Your task to perform on an android device: toggle data saver in the chrome app Image 0: 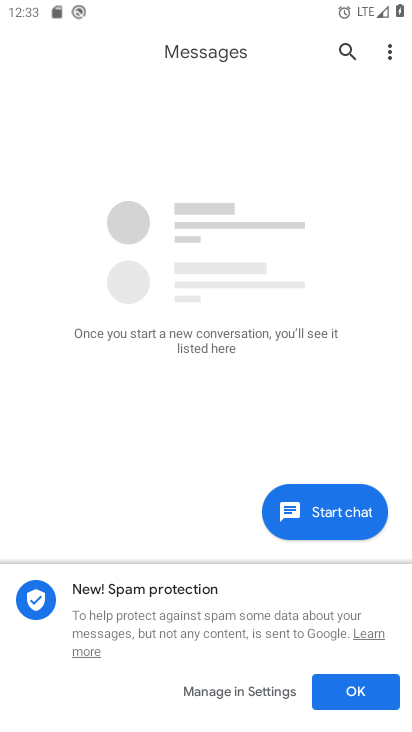
Step 0: press home button
Your task to perform on an android device: toggle data saver in the chrome app Image 1: 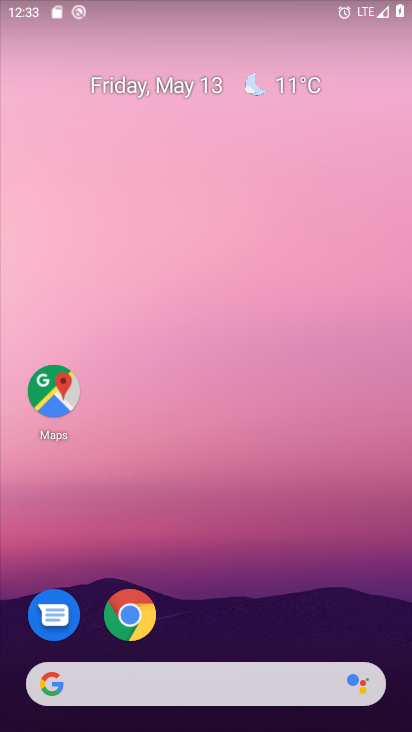
Step 1: click (139, 610)
Your task to perform on an android device: toggle data saver in the chrome app Image 2: 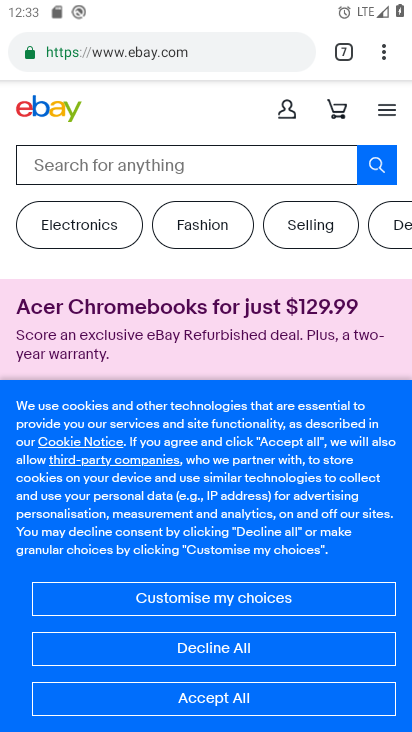
Step 2: click (381, 49)
Your task to perform on an android device: toggle data saver in the chrome app Image 3: 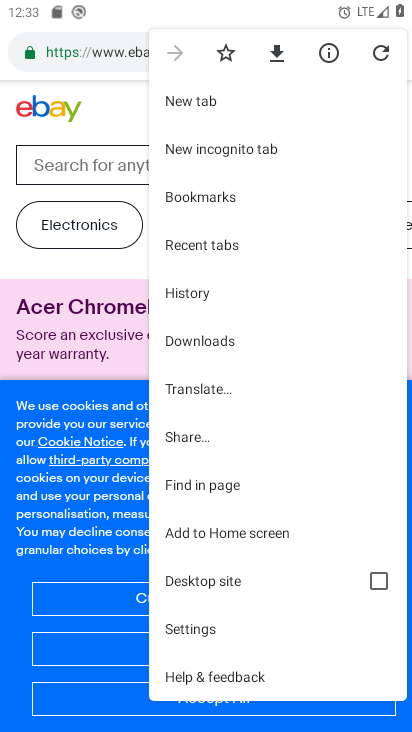
Step 3: click (235, 629)
Your task to perform on an android device: toggle data saver in the chrome app Image 4: 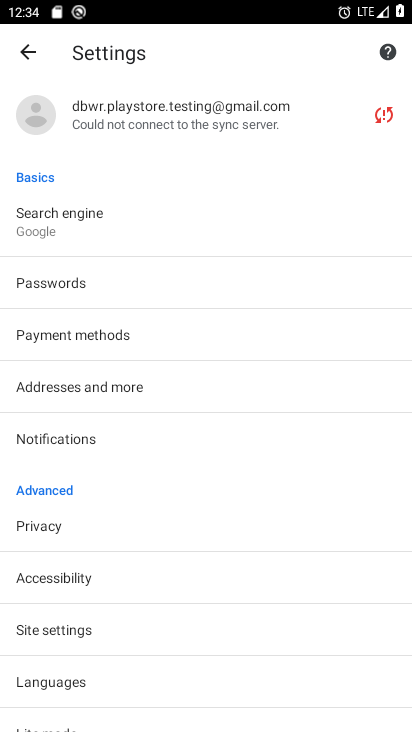
Step 4: drag from (235, 626) to (227, 432)
Your task to perform on an android device: toggle data saver in the chrome app Image 5: 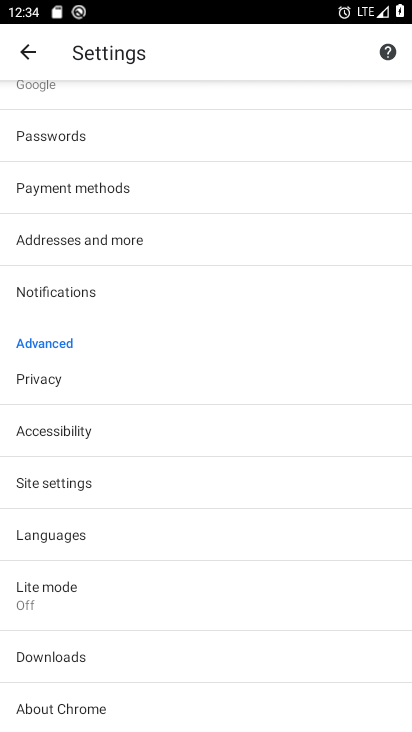
Step 5: click (166, 598)
Your task to perform on an android device: toggle data saver in the chrome app Image 6: 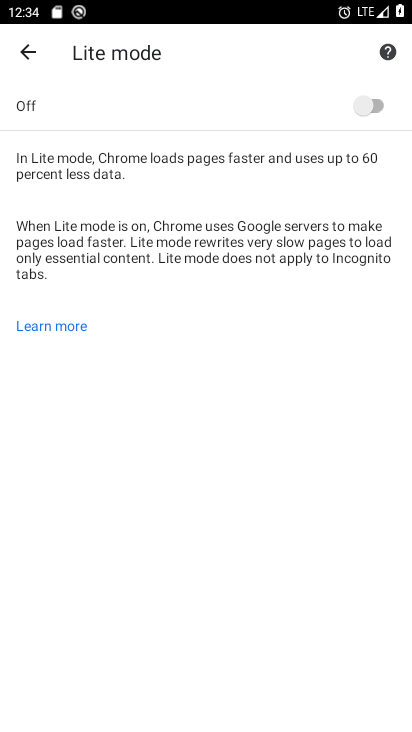
Step 6: click (375, 102)
Your task to perform on an android device: toggle data saver in the chrome app Image 7: 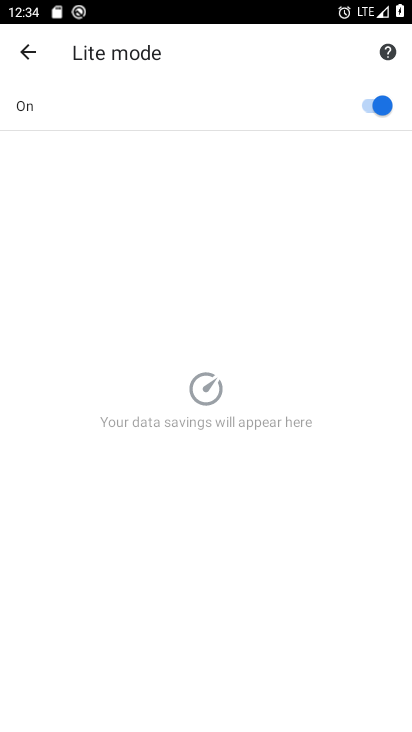
Step 7: task complete